Your task to perform on an android device: Open Reddit.com Image 0: 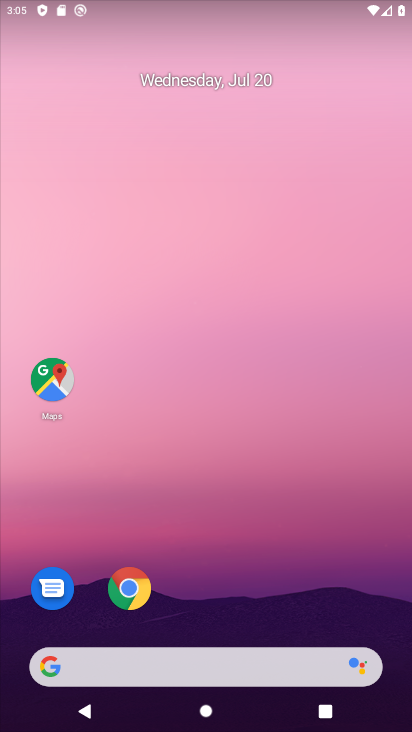
Step 0: click (135, 596)
Your task to perform on an android device: Open Reddit.com Image 1: 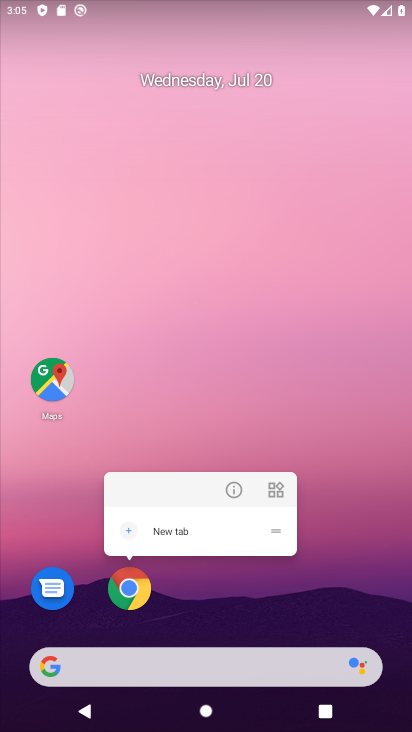
Step 1: click (137, 591)
Your task to perform on an android device: Open Reddit.com Image 2: 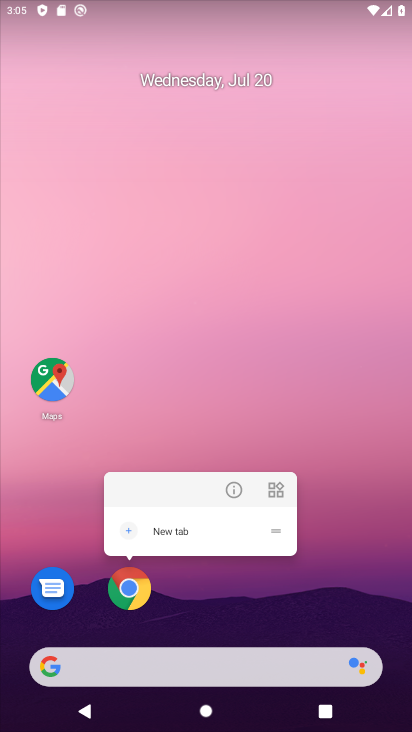
Step 2: click (134, 590)
Your task to perform on an android device: Open Reddit.com Image 3: 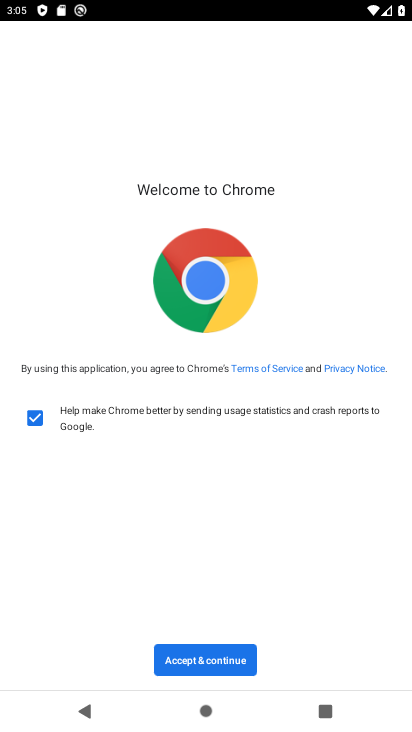
Step 3: click (220, 656)
Your task to perform on an android device: Open Reddit.com Image 4: 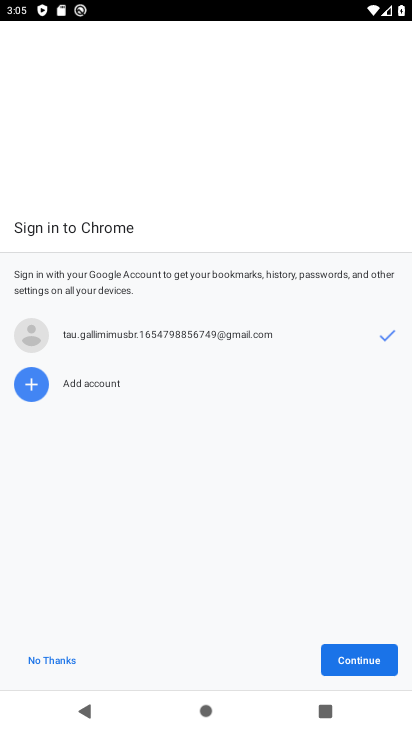
Step 4: click (381, 667)
Your task to perform on an android device: Open Reddit.com Image 5: 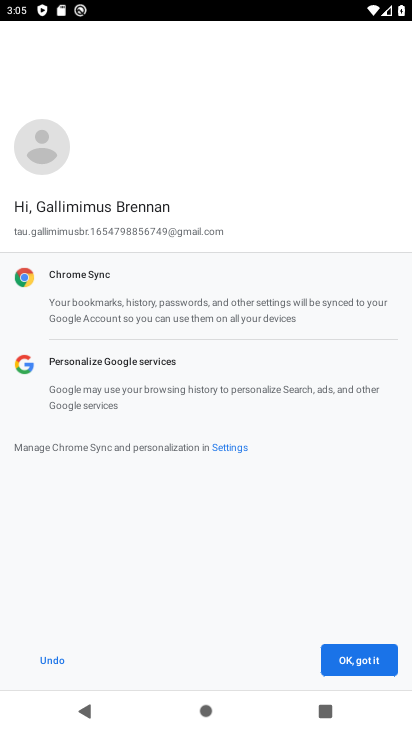
Step 5: click (381, 667)
Your task to perform on an android device: Open Reddit.com Image 6: 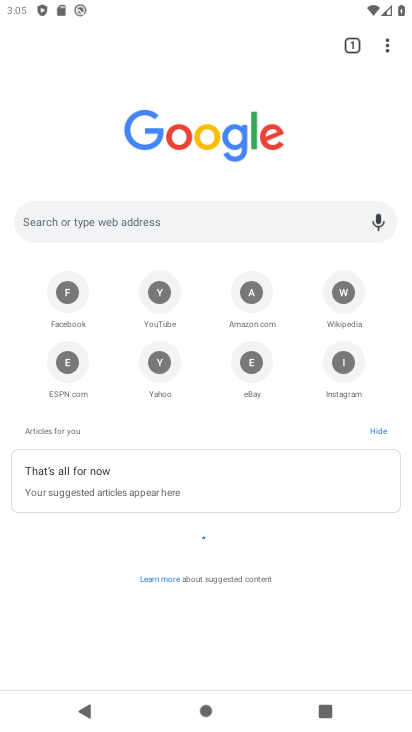
Step 6: click (190, 232)
Your task to perform on an android device: Open Reddit.com Image 7: 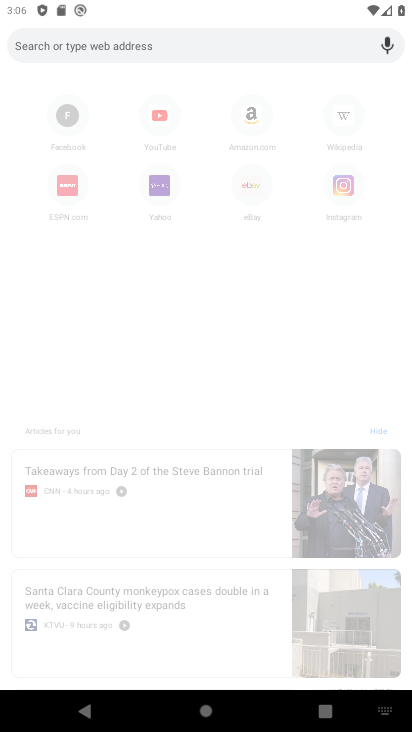
Step 7: type "Reddit.com"
Your task to perform on an android device: Open Reddit.com Image 8: 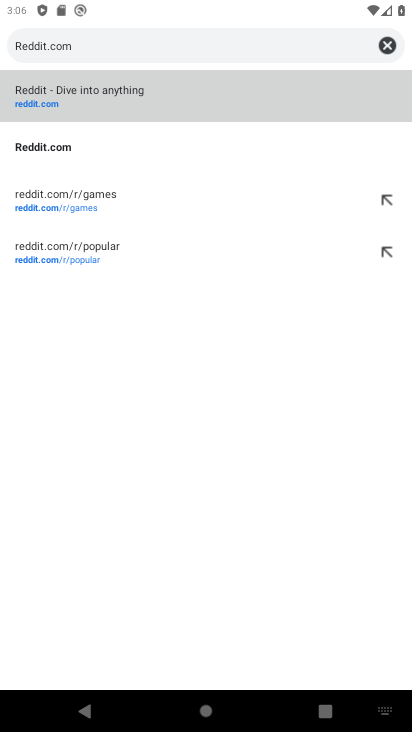
Step 8: click (125, 114)
Your task to perform on an android device: Open Reddit.com Image 9: 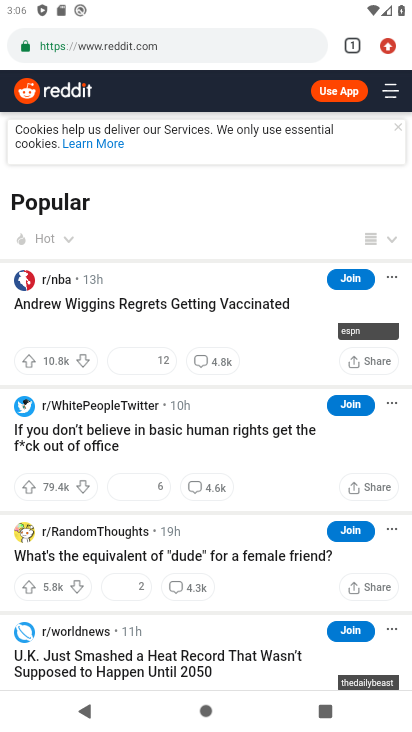
Step 9: task complete